Your task to perform on an android device: Check the weather Image 0: 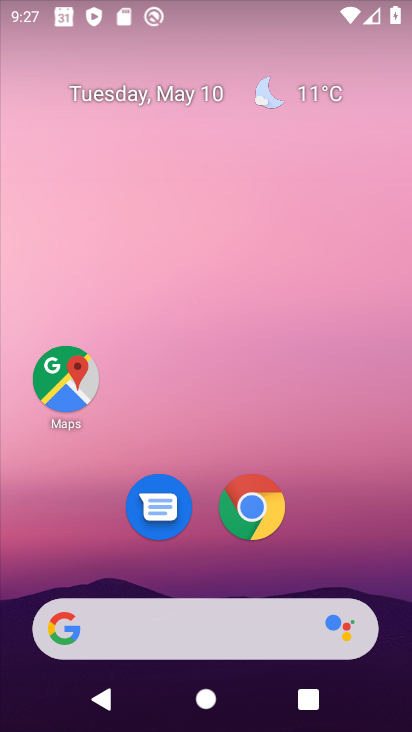
Step 0: click (229, 626)
Your task to perform on an android device: Check the weather Image 1: 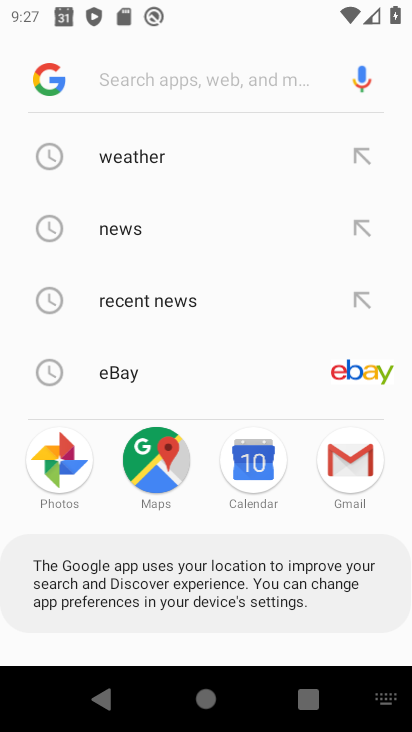
Step 1: click (169, 166)
Your task to perform on an android device: Check the weather Image 2: 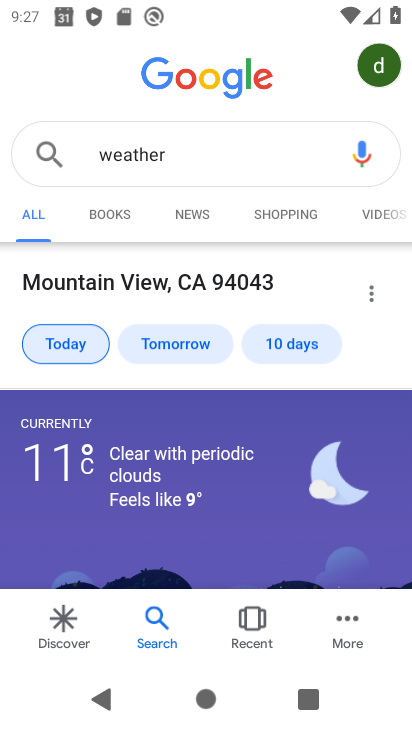
Step 2: task complete